Your task to perform on an android device: turn on the 24-hour format for clock Image 0: 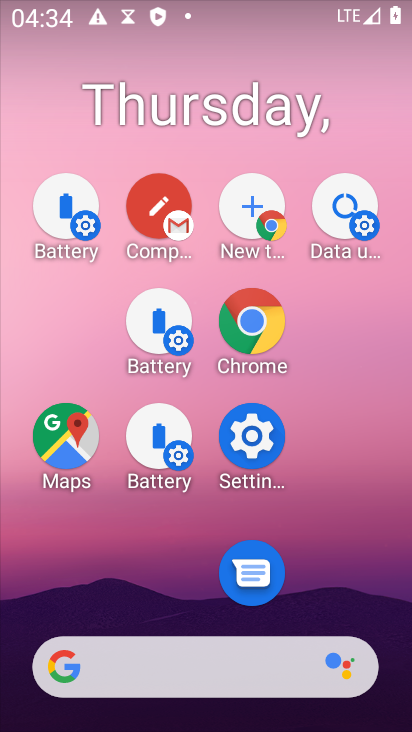
Step 0: drag from (268, 620) to (237, 241)
Your task to perform on an android device: turn on the 24-hour format for clock Image 1: 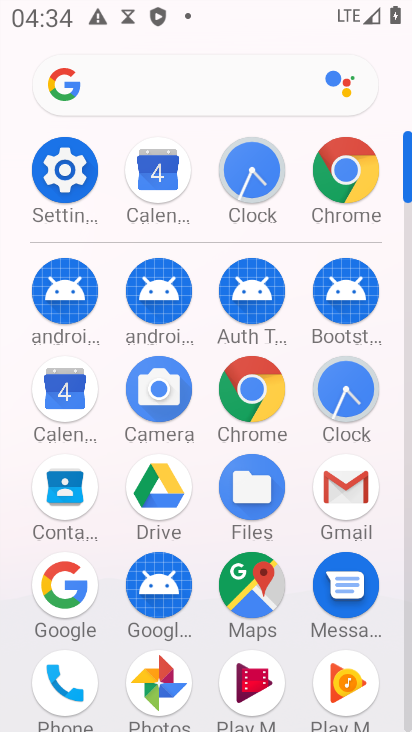
Step 1: click (249, 178)
Your task to perform on an android device: turn on the 24-hour format for clock Image 2: 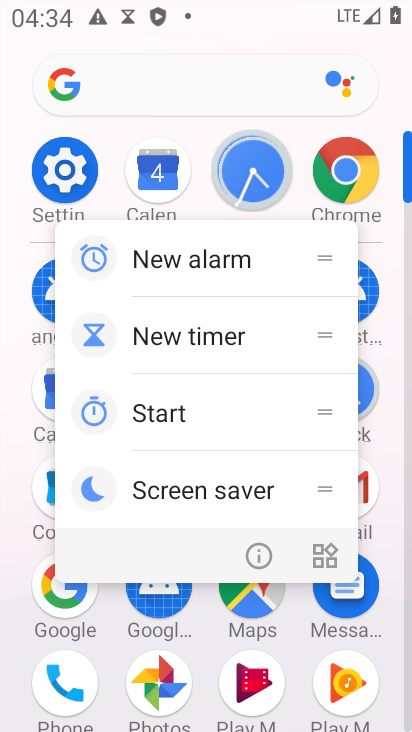
Step 2: click (249, 178)
Your task to perform on an android device: turn on the 24-hour format for clock Image 3: 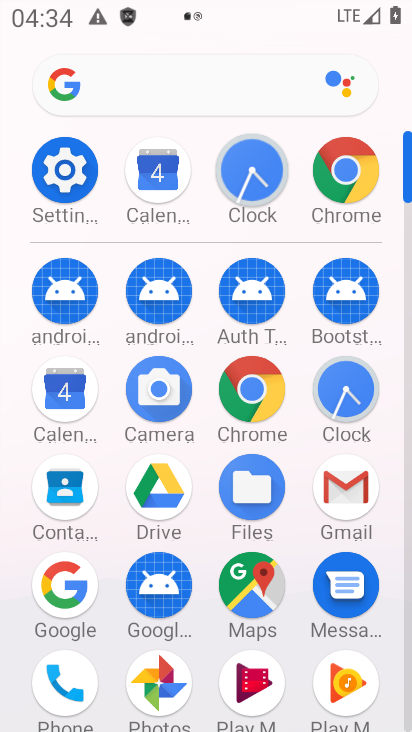
Step 3: click (249, 178)
Your task to perform on an android device: turn on the 24-hour format for clock Image 4: 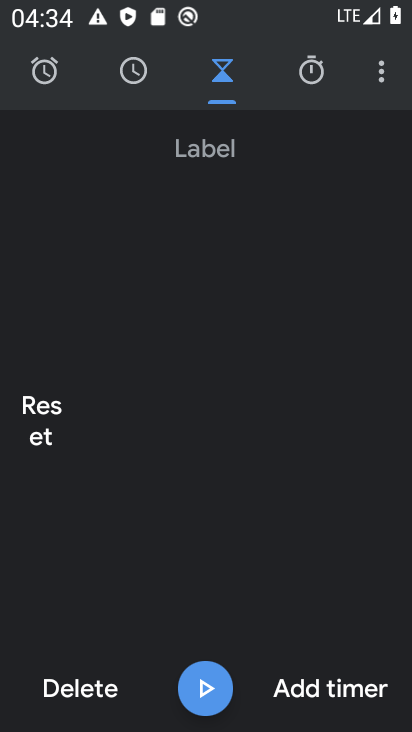
Step 4: click (254, 187)
Your task to perform on an android device: turn on the 24-hour format for clock Image 5: 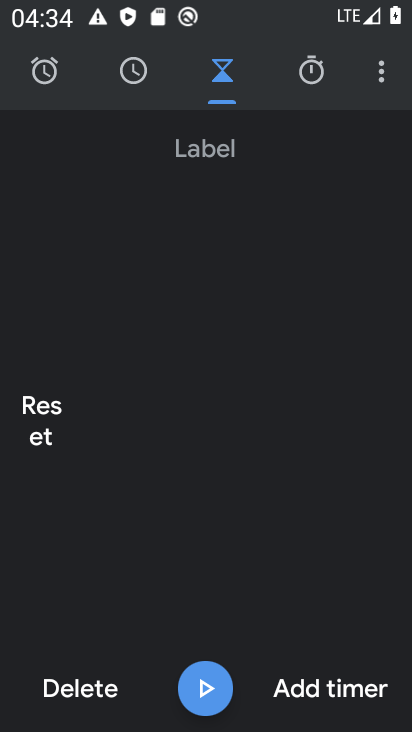
Step 5: click (370, 68)
Your task to perform on an android device: turn on the 24-hour format for clock Image 6: 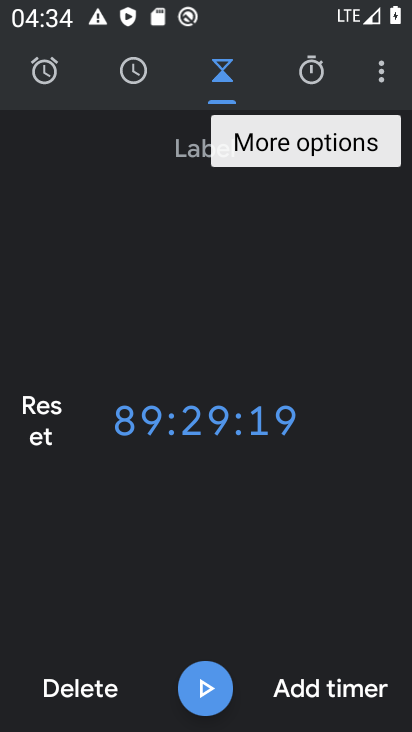
Step 6: click (333, 149)
Your task to perform on an android device: turn on the 24-hour format for clock Image 7: 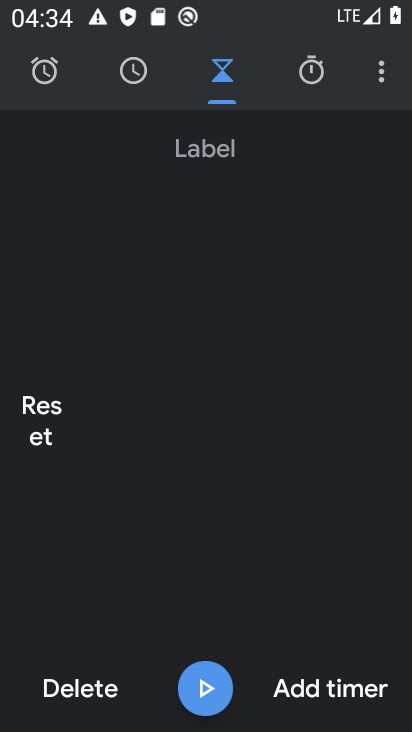
Step 7: click (369, 79)
Your task to perform on an android device: turn on the 24-hour format for clock Image 8: 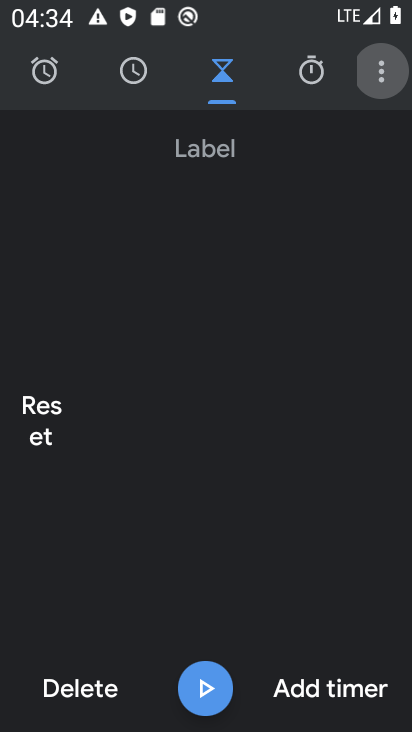
Step 8: click (382, 63)
Your task to perform on an android device: turn on the 24-hour format for clock Image 9: 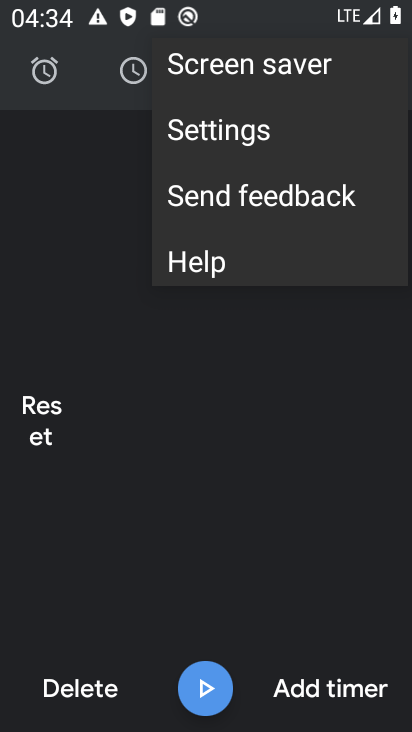
Step 9: click (385, 62)
Your task to perform on an android device: turn on the 24-hour format for clock Image 10: 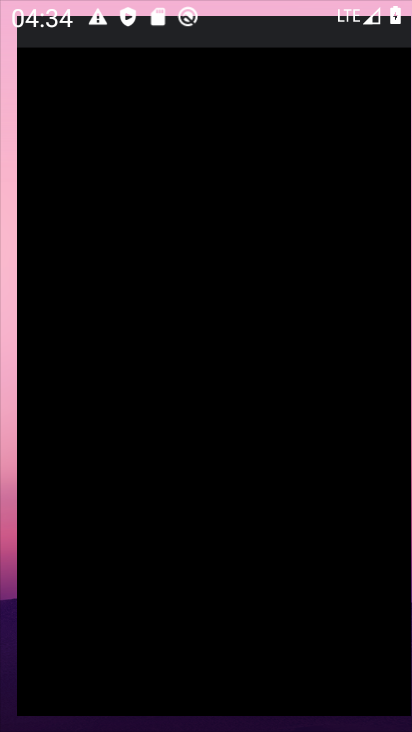
Step 10: click (256, 141)
Your task to perform on an android device: turn on the 24-hour format for clock Image 11: 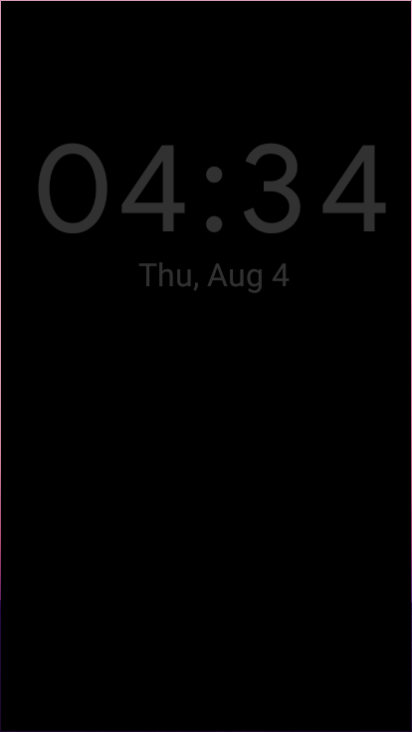
Step 11: click (253, 142)
Your task to perform on an android device: turn on the 24-hour format for clock Image 12: 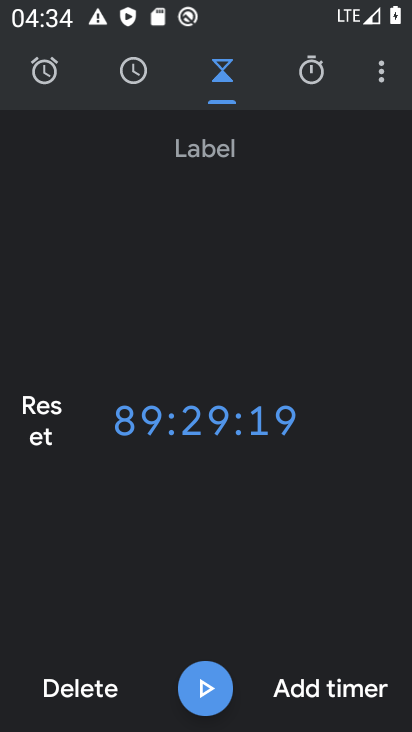
Step 12: click (385, 76)
Your task to perform on an android device: turn on the 24-hour format for clock Image 13: 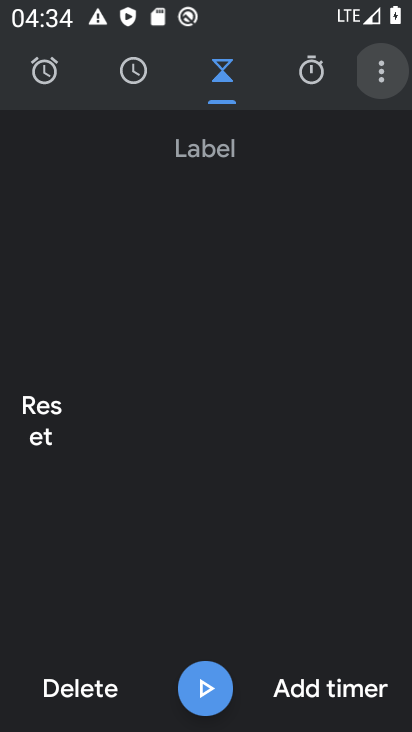
Step 13: click (377, 76)
Your task to perform on an android device: turn on the 24-hour format for clock Image 14: 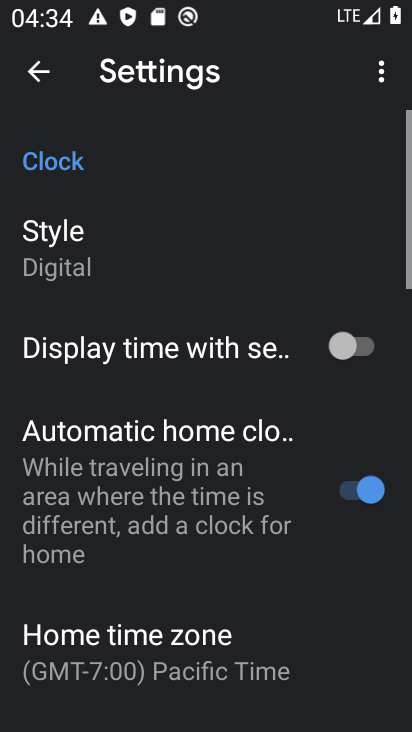
Step 14: click (233, 135)
Your task to perform on an android device: turn on the 24-hour format for clock Image 15: 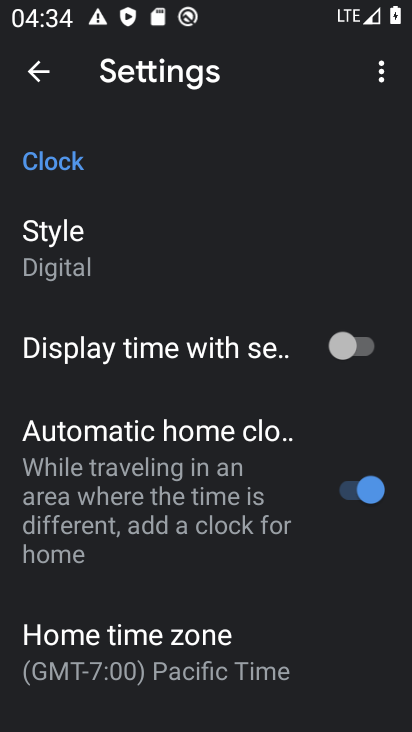
Step 15: drag from (206, 601) to (133, 194)
Your task to perform on an android device: turn on the 24-hour format for clock Image 16: 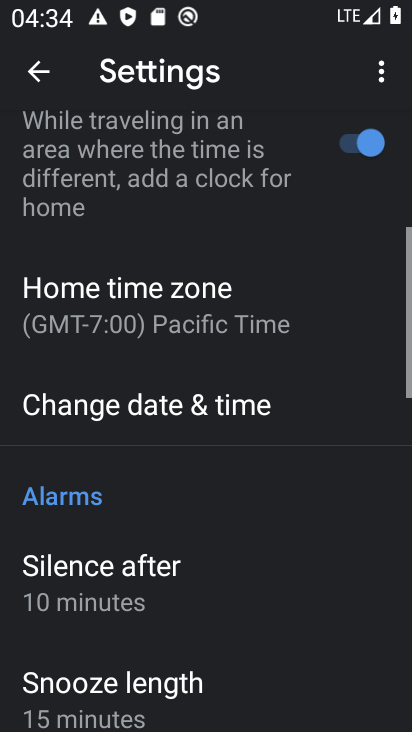
Step 16: drag from (145, 521) to (157, 168)
Your task to perform on an android device: turn on the 24-hour format for clock Image 17: 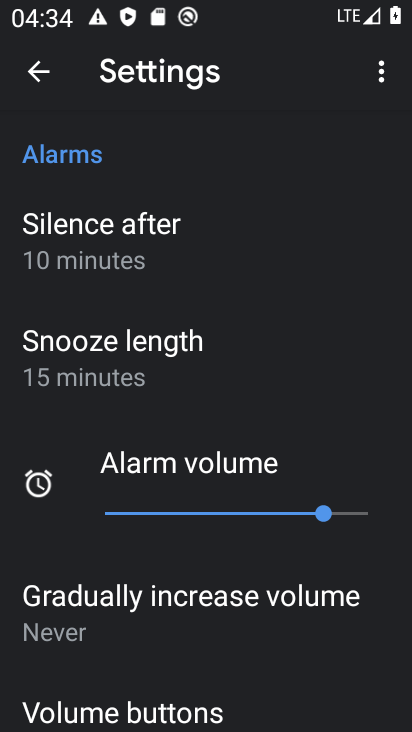
Step 17: drag from (157, 322) to (185, 625)
Your task to perform on an android device: turn on the 24-hour format for clock Image 18: 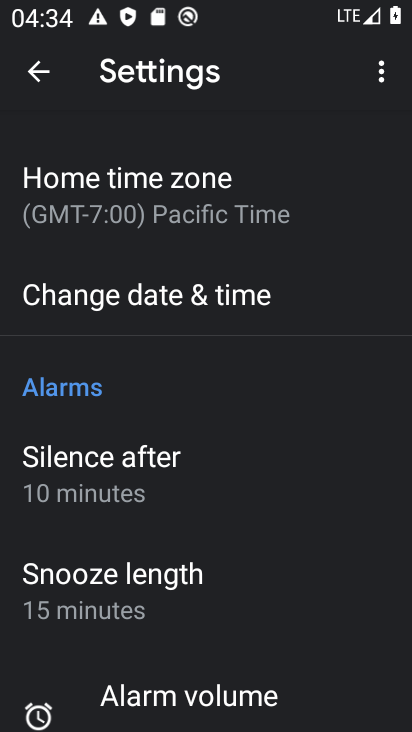
Step 18: click (144, 297)
Your task to perform on an android device: turn on the 24-hour format for clock Image 19: 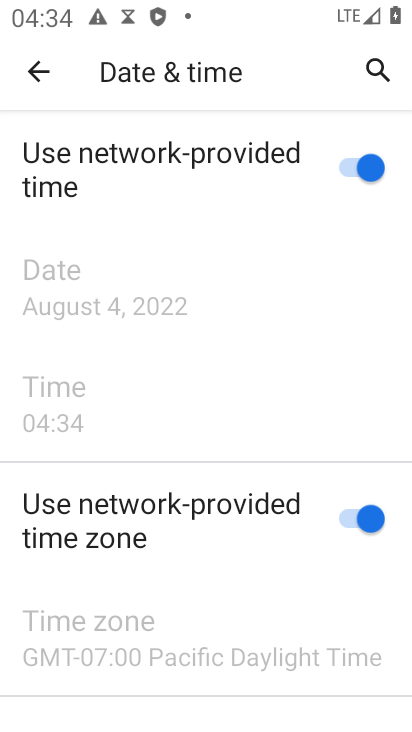
Step 19: task complete